Your task to perform on an android device: Open Yahoo.com Image 0: 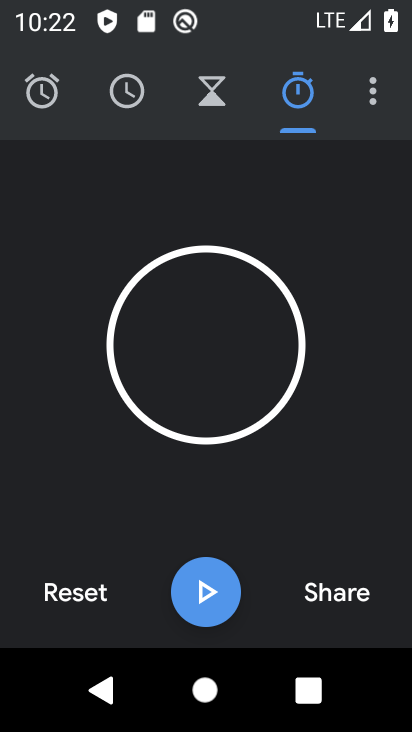
Step 0: press home button
Your task to perform on an android device: Open Yahoo.com Image 1: 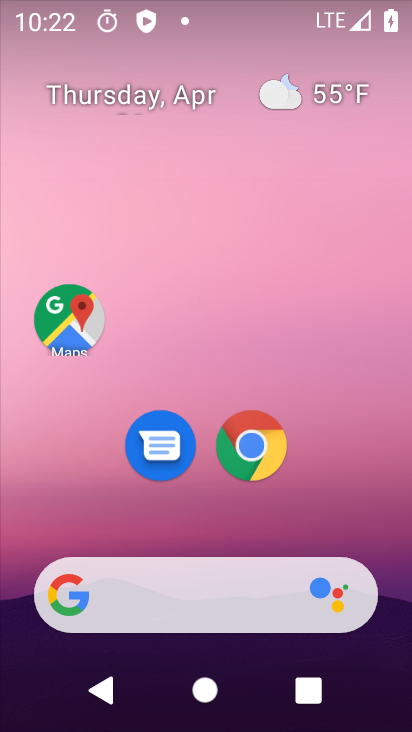
Step 1: click (244, 445)
Your task to perform on an android device: Open Yahoo.com Image 2: 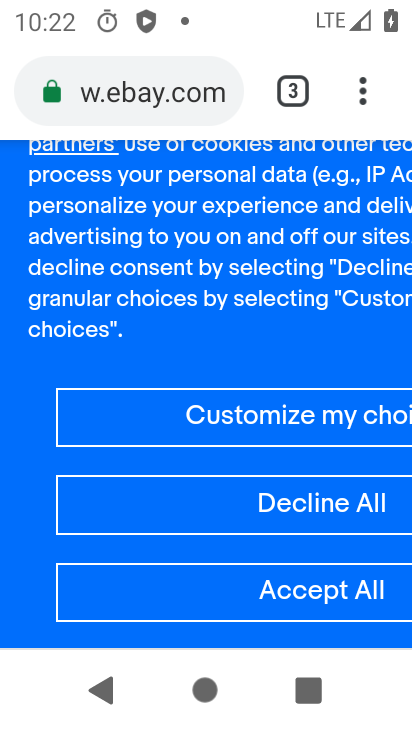
Step 2: click (149, 99)
Your task to perform on an android device: Open Yahoo.com Image 3: 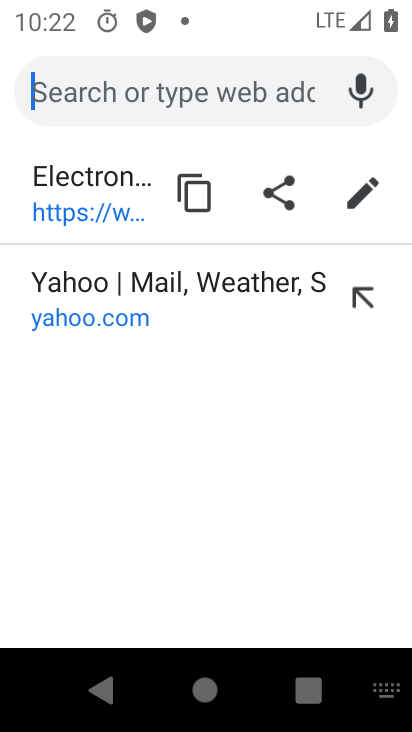
Step 3: click (92, 307)
Your task to perform on an android device: Open Yahoo.com Image 4: 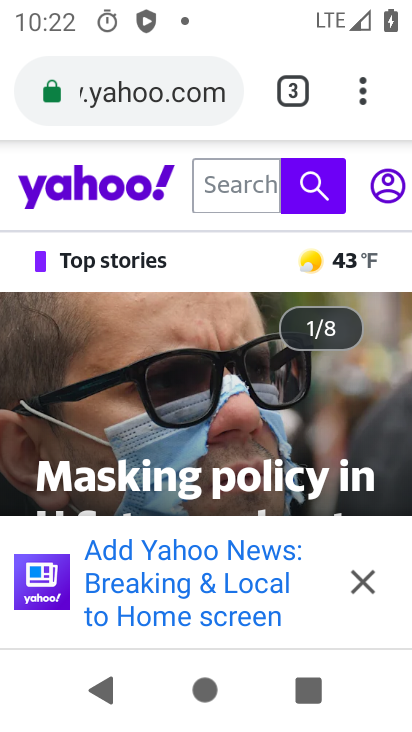
Step 4: task complete